Your task to perform on an android device: open app "PlayWell" Image 0: 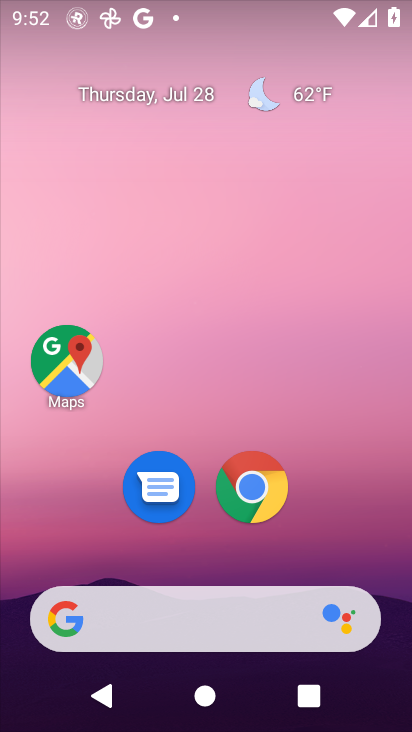
Step 0: drag from (278, 659) to (236, 141)
Your task to perform on an android device: open app "PlayWell" Image 1: 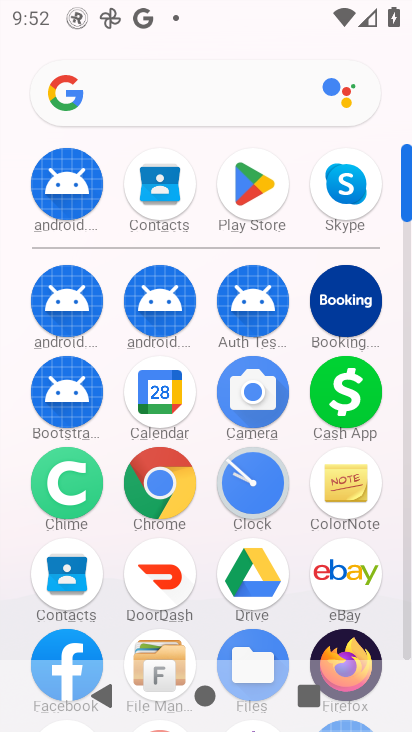
Step 1: drag from (274, 526) to (235, 210)
Your task to perform on an android device: open app "PlayWell" Image 2: 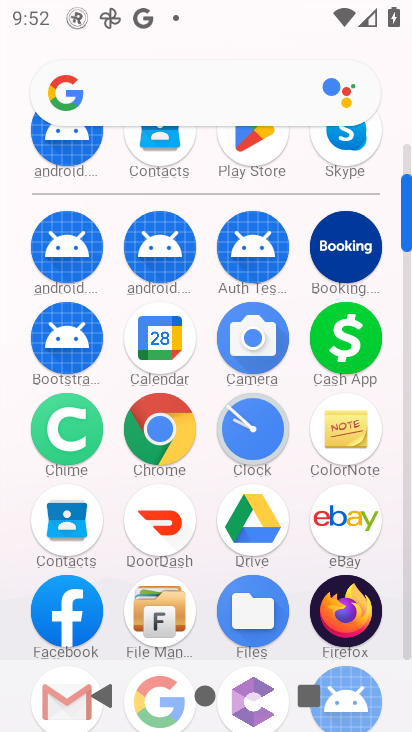
Step 2: drag from (253, 237) to (277, 474)
Your task to perform on an android device: open app "PlayWell" Image 3: 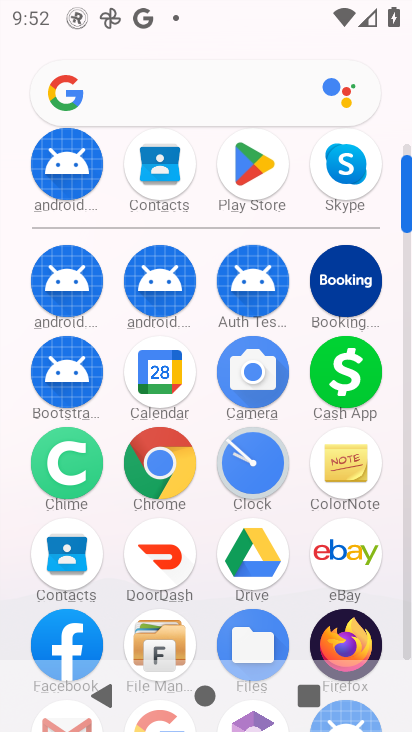
Step 3: drag from (290, 223) to (290, 420)
Your task to perform on an android device: open app "PlayWell" Image 4: 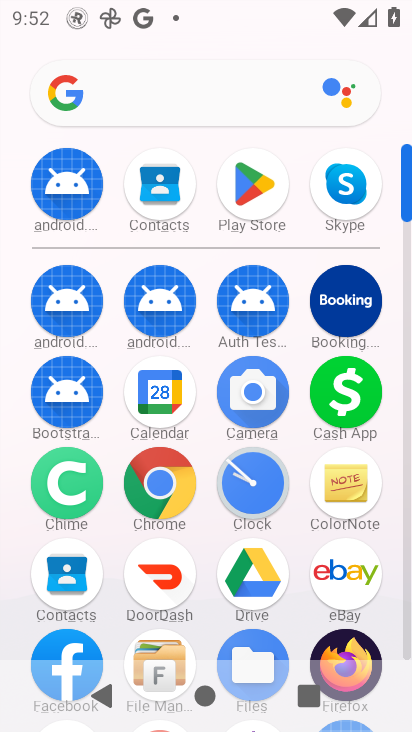
Step 4: click (243, 197)
Your task to perform on an android device: open app "PlayWell" Image 5: 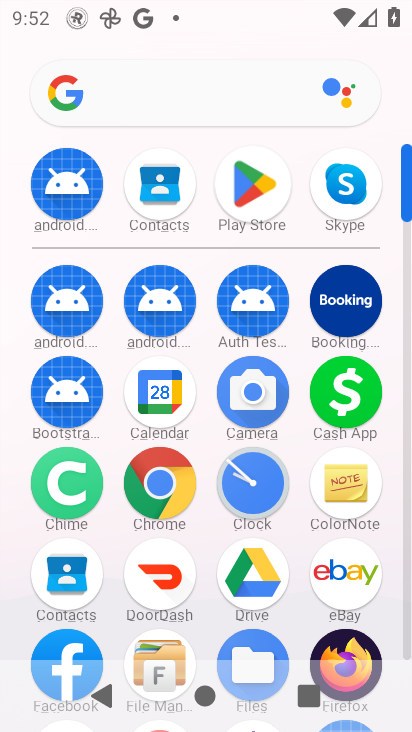
Step 5: click (244, 192)
Your task to perform on an android device: open app "PlayWell" Image 6: 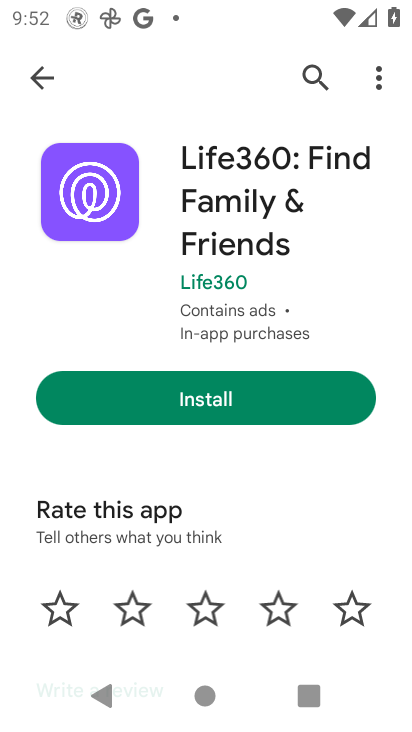
Step 6: click (39, 71)
Your task to perform on an android device: open app "PlayWell" Image 7: 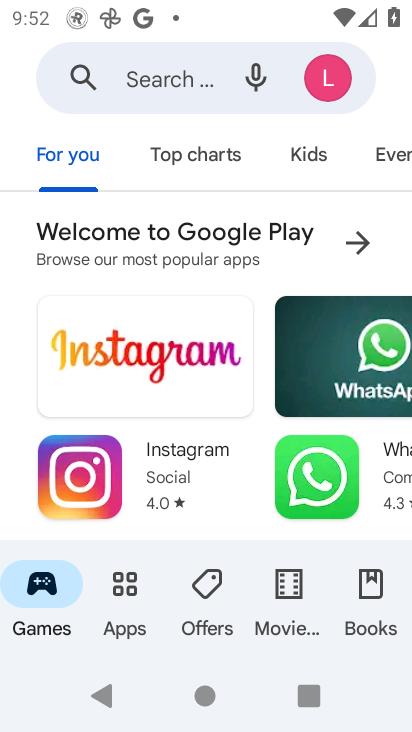
Step 7: click (163, 81)
Your task to perform on an android device: open app "PlayWell" Image 8: 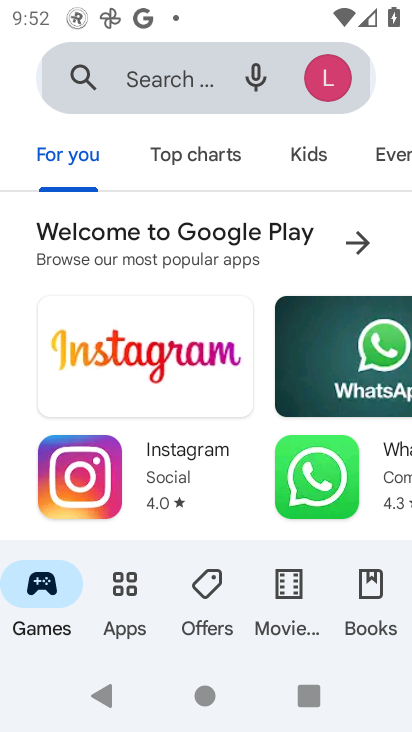
Step 8: click (162, 80)
Your task to perform on an android device: open app "PlayWell" Image 9: 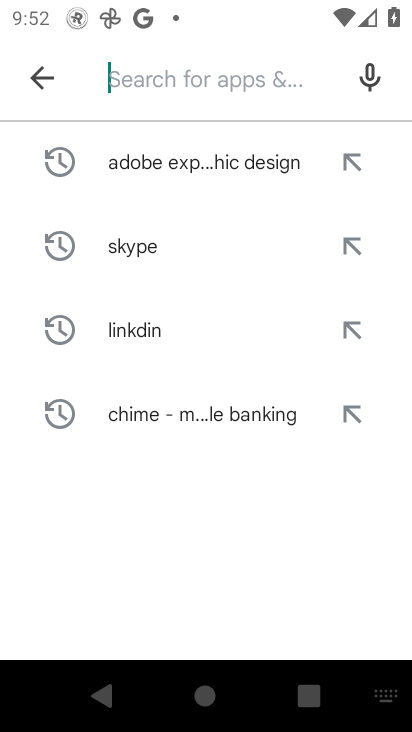
Step 9: type "Playwell"
Your task to perform on an android device: open app "PlayWell" Image 10: 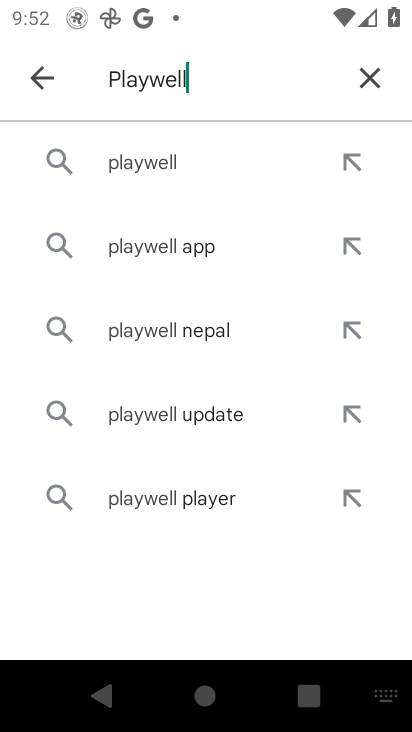
Step 10: click (145, 161)
Your task to perform on an android device: open app "PlayWell" Image 11: 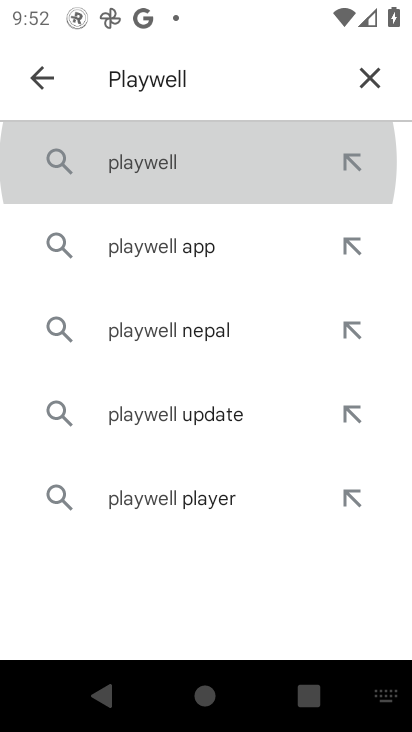
Step 11: click (146, 163)
Your task to perform on an android device: open app "PlayWell" Image 12: 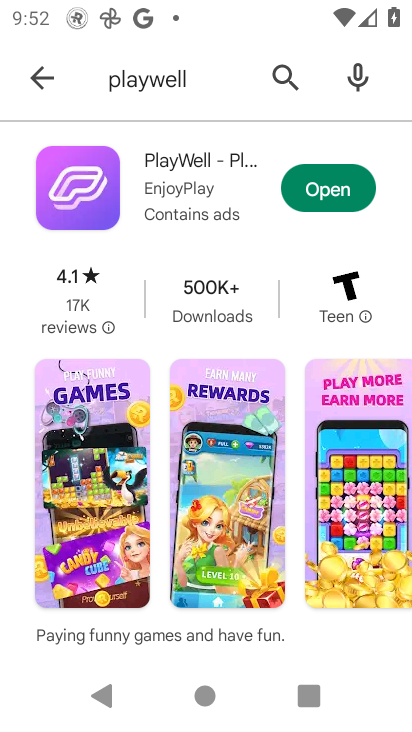
Step 12: click (337, 188)
Your task to perform on an android device: open app "PlayWell" Image 13: 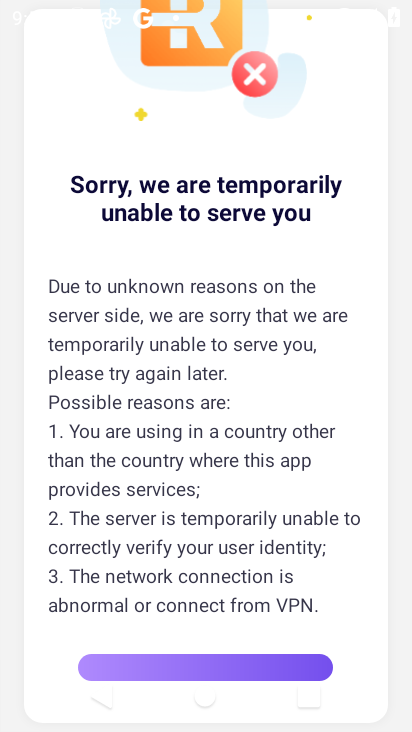
Step 13: task complete